Your task to perform on an android device: toggle priority inbox in the gmail app Image 0: 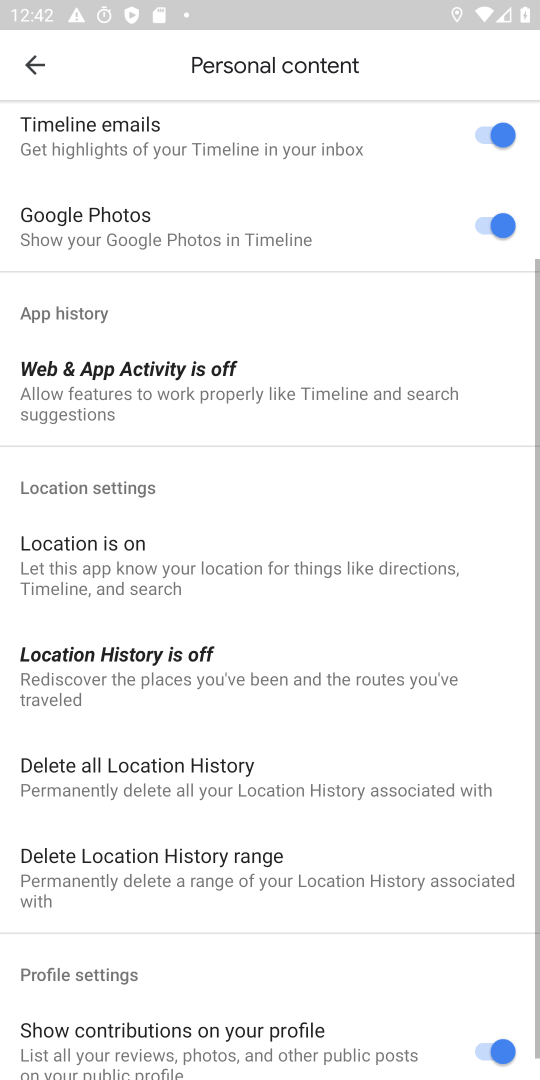
Step 0: press home button
Your task to perform on an android device: toggle priority inbox in the gmail app Image 1: 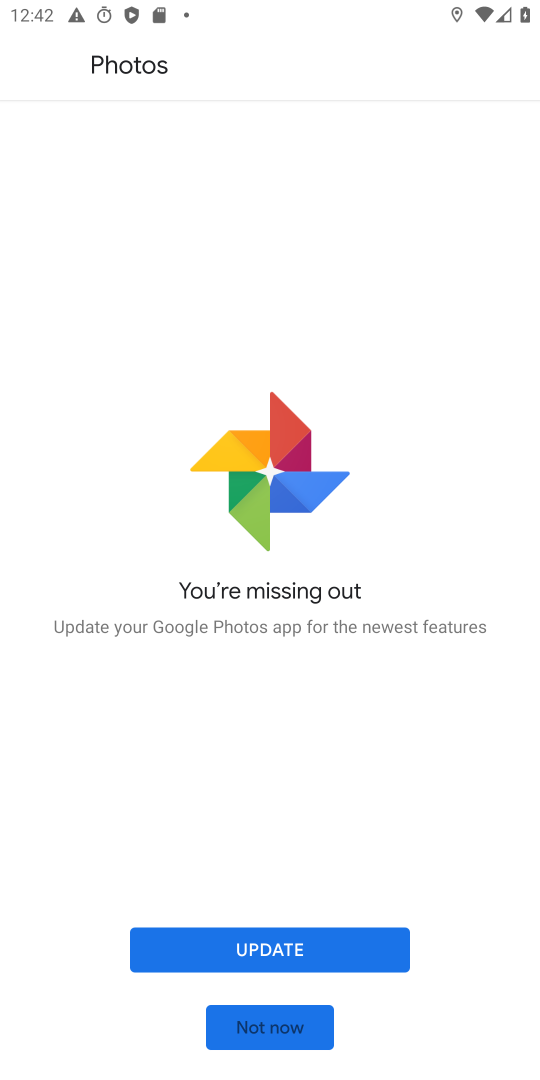
Step 1: press home button
Your task to perform on an android device: toggle priority inbox in the gmail app Image 2: 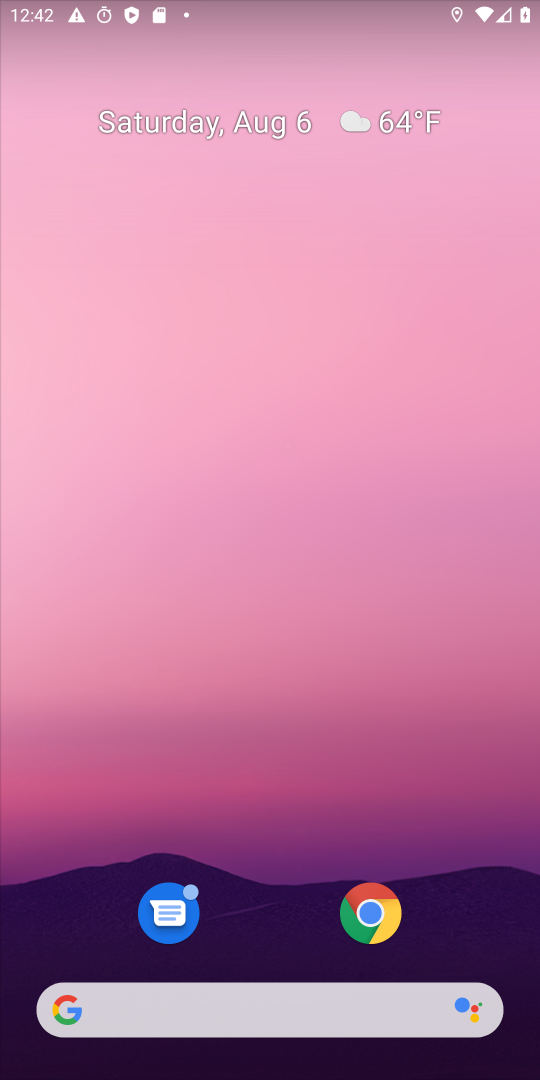
Step 2: press home button
Your task to perform on an android device: toggle priority inbox in the gmail app Image 3: 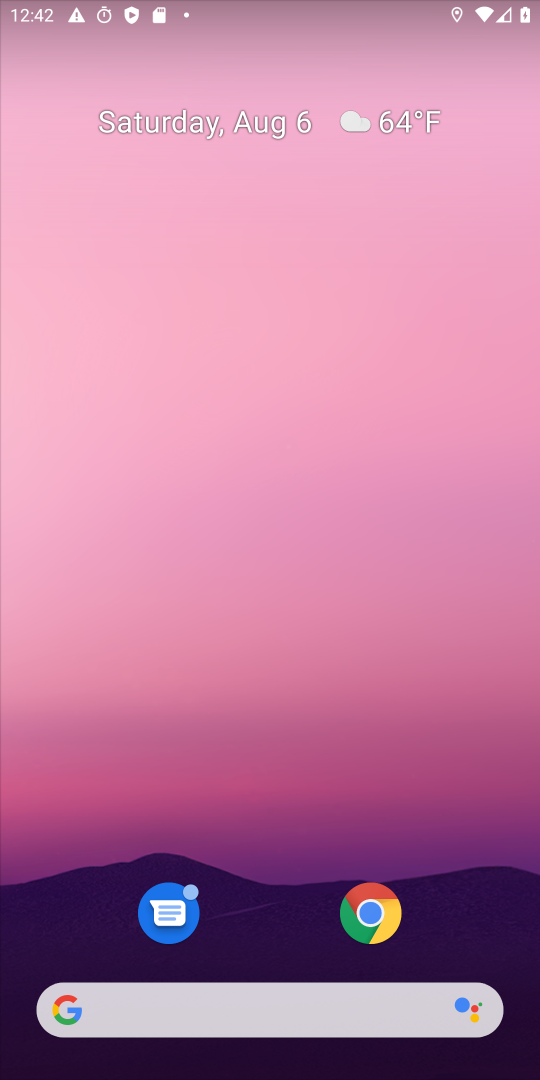
Step 3: drag from (483, 924) to (465, 386)
Your task to perform on an android device: toggle priority inbox in the gmail app Image 4: 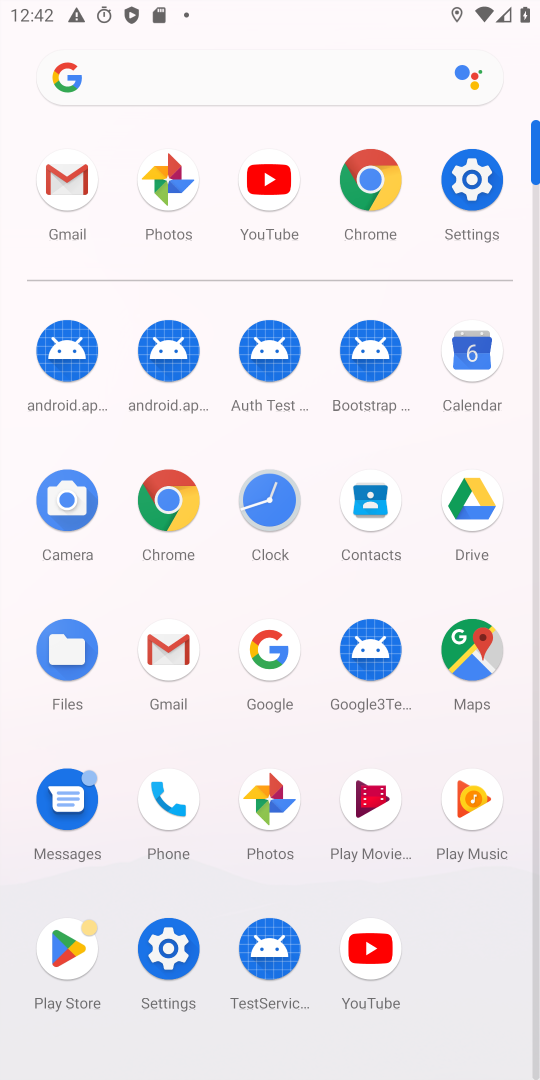
Step 4: click (162, 656)
Your task to perform on an android device: toggle priority inbox in the gmail app Image 5: 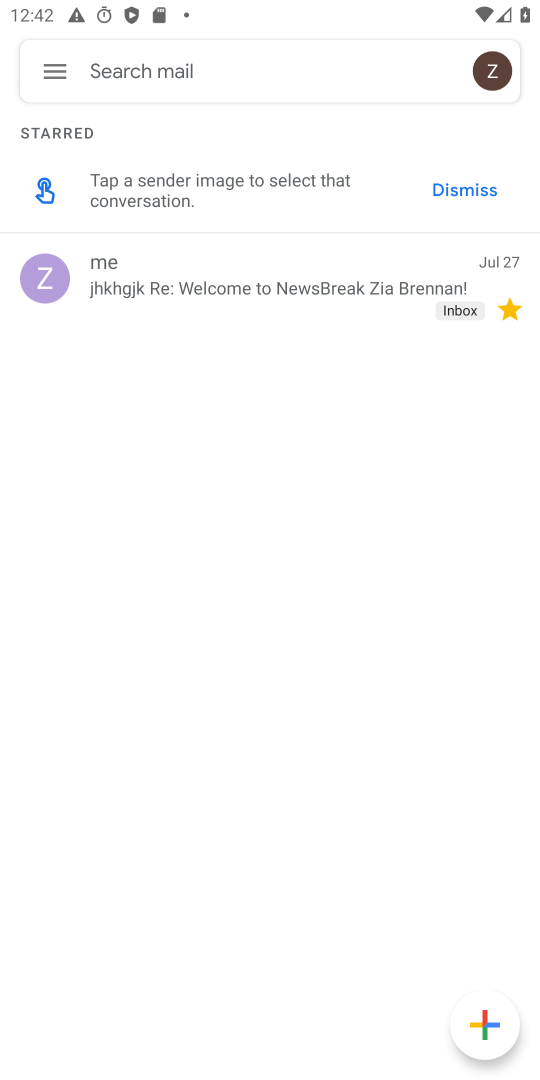
Step 5: click (54, 66)
Your task to perform on an android device: toggle priority inbox in the gmail app Image 6: 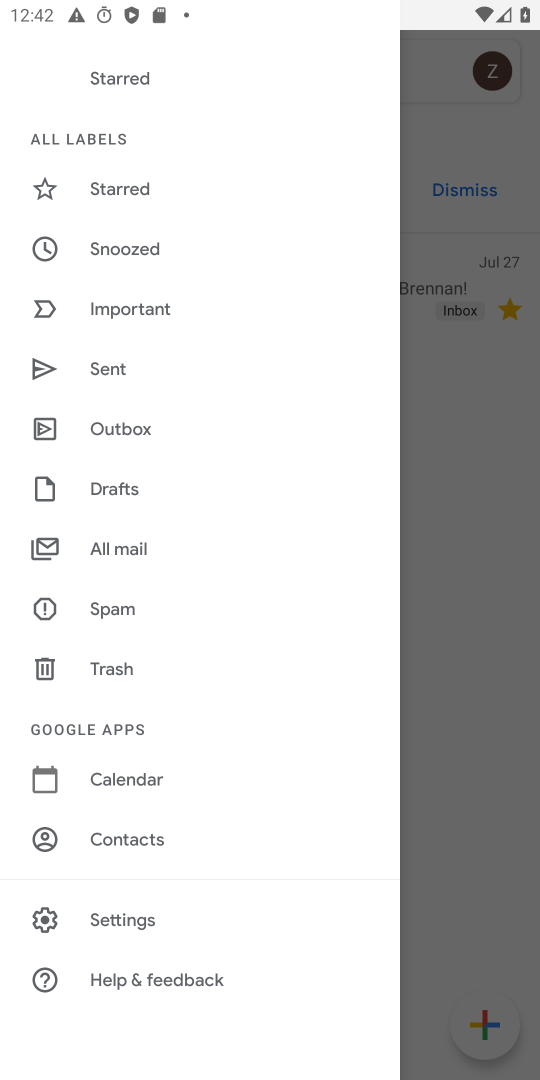
Step 6: click (194, 910)
Your task to perform on an android device: toggle priority inbox in the gmail app Image 7: 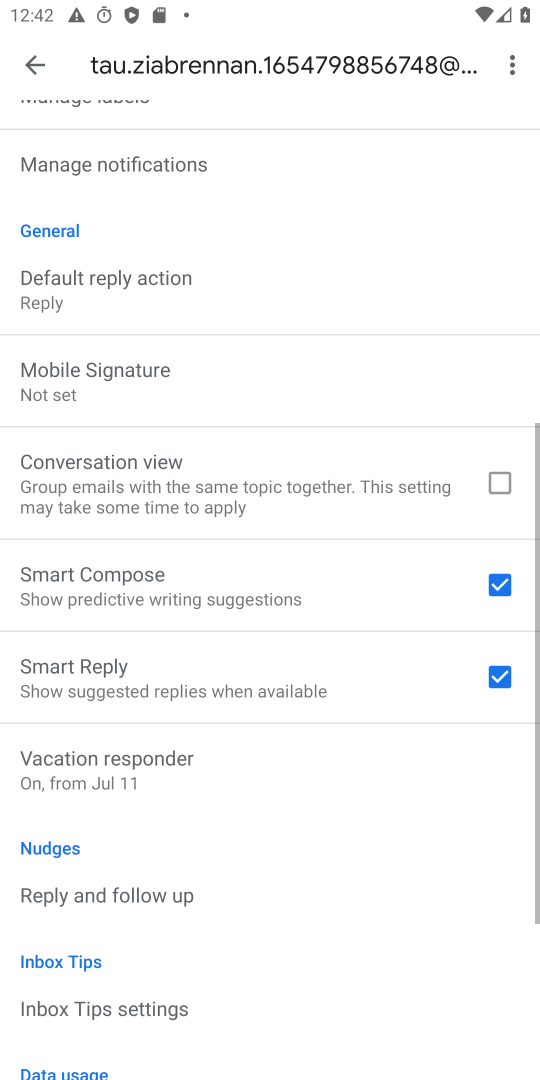
Step 7: task complete